Your task to perform on an android device: Go to Reddit.com Image 0: 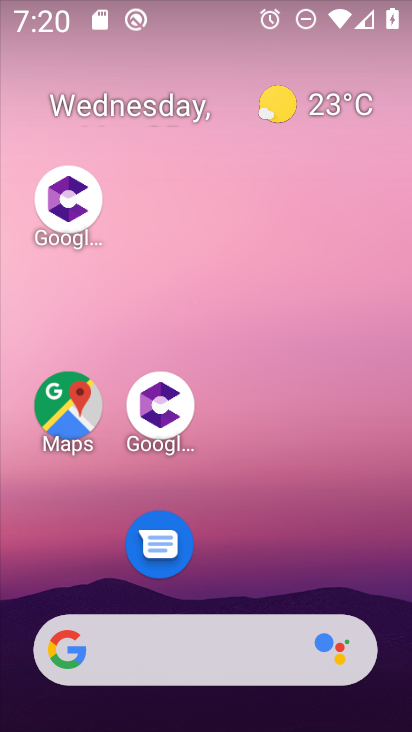
Step 0: drag from (287, 549) to (170, 38)
Your task to perform on an android device: Go to Reddit.com Image 1: 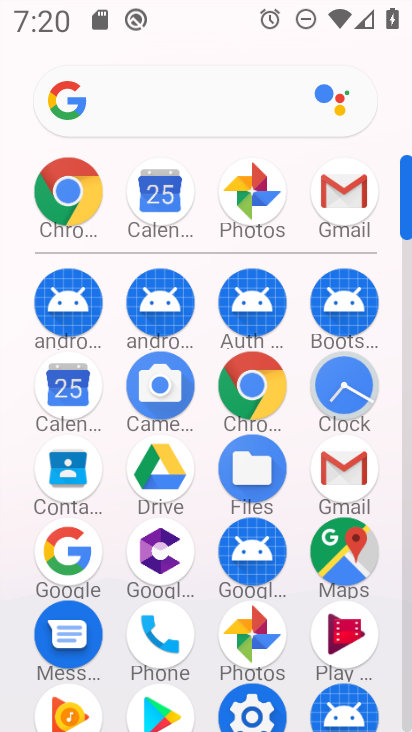
Step 1: click (69, 189)
Your task to perform on an android device: Go to Reddit.com Image 2: 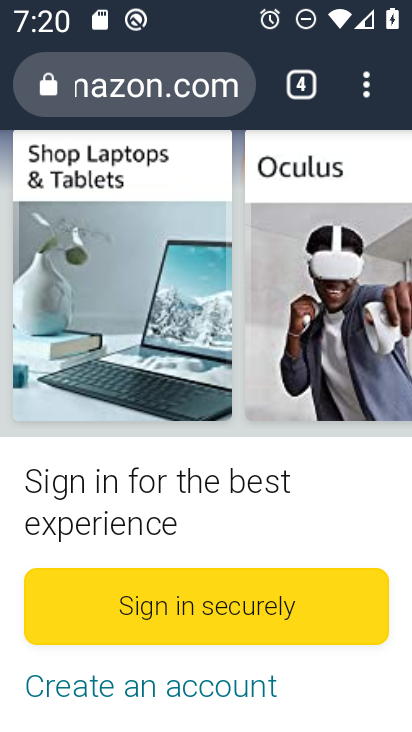
Step 2: click (365, 88)
Your task to perform on an android device: Go to Reddit.com Image 3: 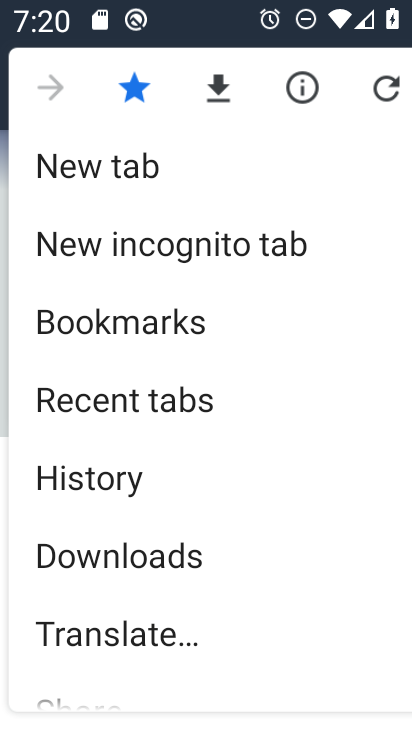
Step 3: click (119, 165)
Your task to perform on an android device: Go to Reddit.com Image 4: 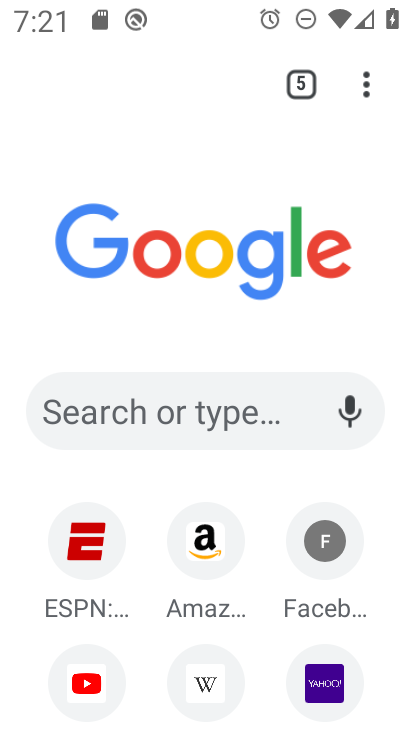
Step 4: click (194, 404)
Your task to perform on an android device: Go to Reddit.com Image 5: 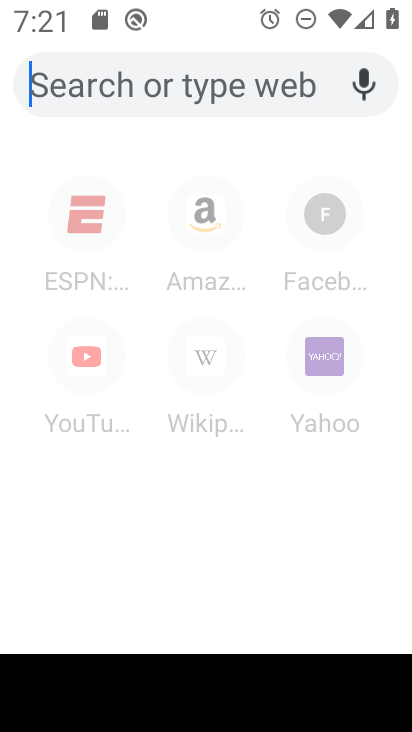
Step 5: type "reddit.com"
Your task to perform on an android device: Go to Reddit.com Image 6: 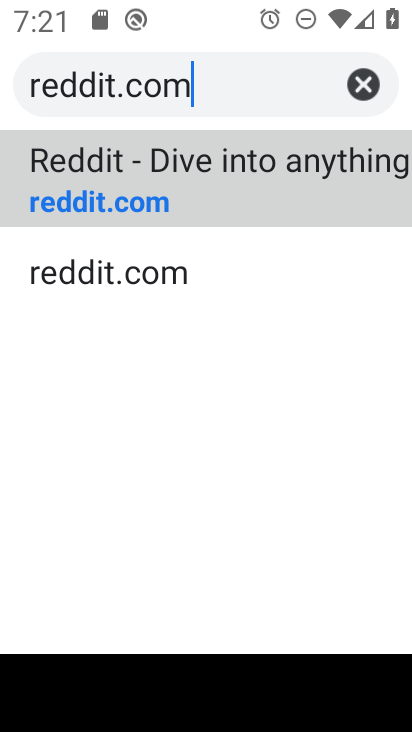
Step 6: click (100, 178)
Your task to perform on an android device: Go to Reddit.com Image 7: 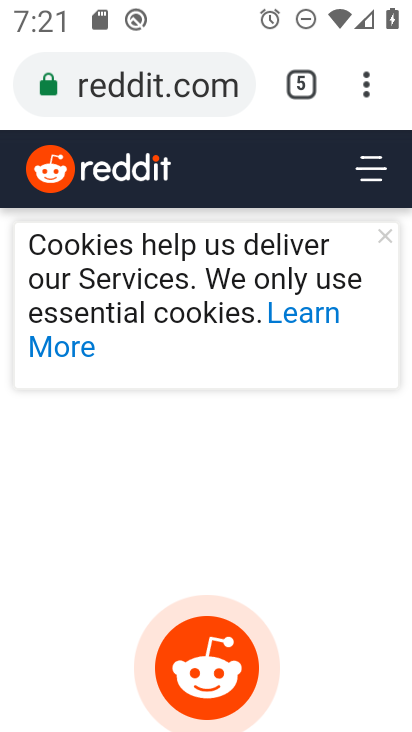
Step 7: task complete